Your task to perform on an android device: Open Maps and search for coffee Image 0: 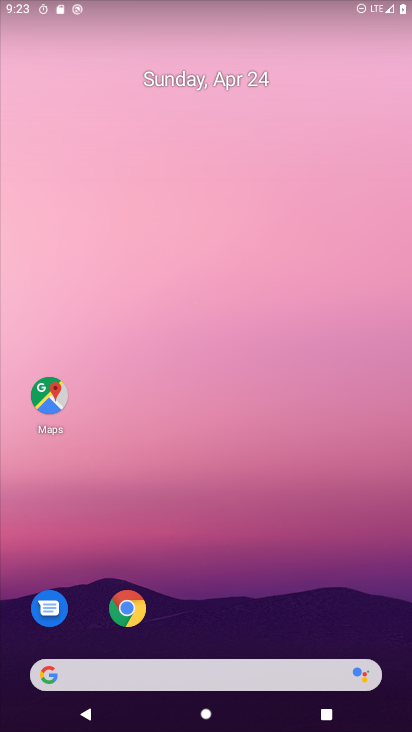
Step 0: click (58, 396)
Your task to perform on an android device: Open Maps and search for coffee Image 1: 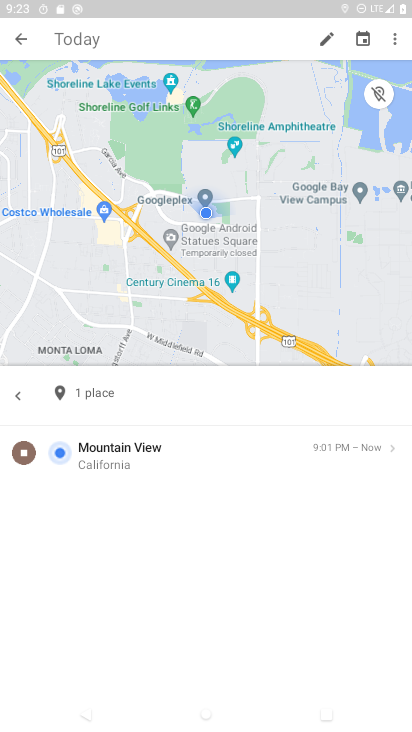
Step 1: click (181, 33)
Your task to perform on an android device: Open Maps and search for coffee Image 2: 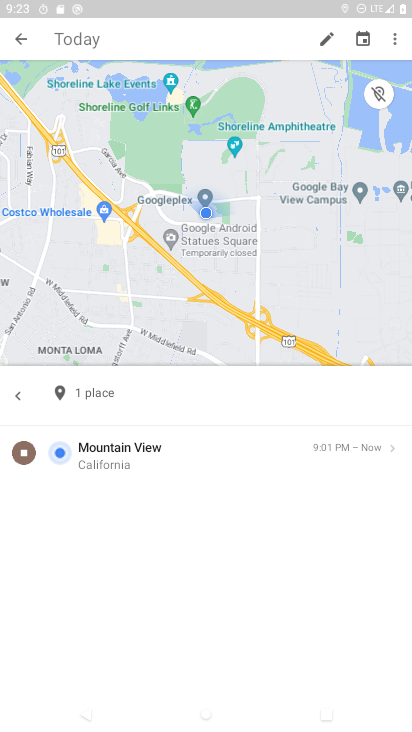
Step 2: click (181, 33)
Your task to perform on an android device: Open Maps and search for coffee Image 3: 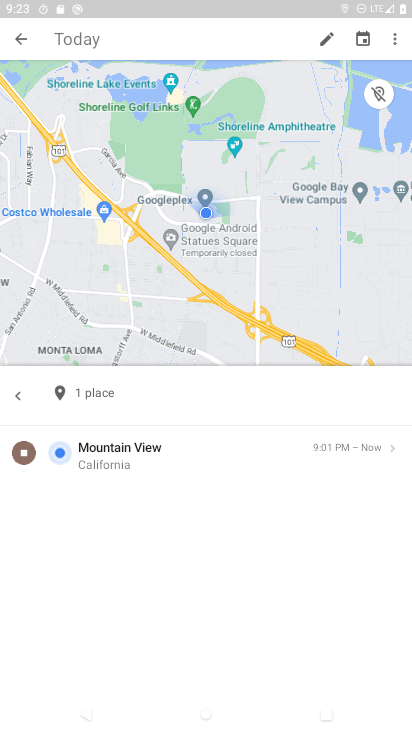
Step 3: click (181, 49)
Your task to perform on an android device: Open Maps and search for coffee Image 4: 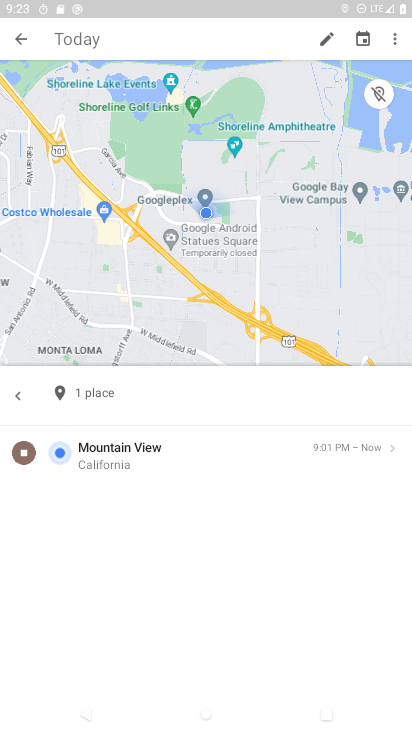
Step 4: click (15, 29)
Your task to perform on an android device: Open Maps and search for coffee Image 5: 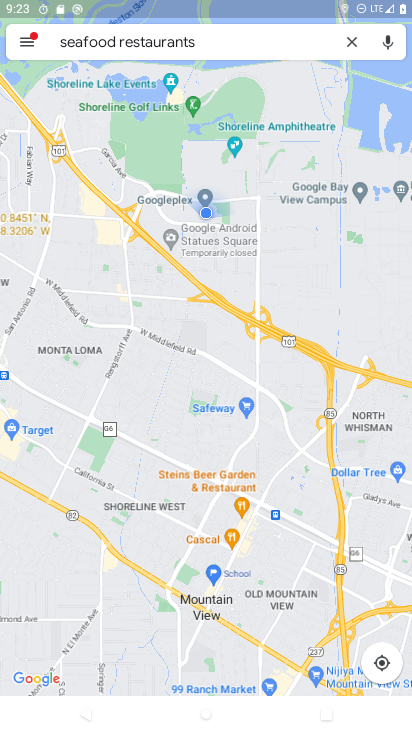
Step 5: click (103, 45)
Your task to perform on an android device: Open Maps and search for coffee Image 6: 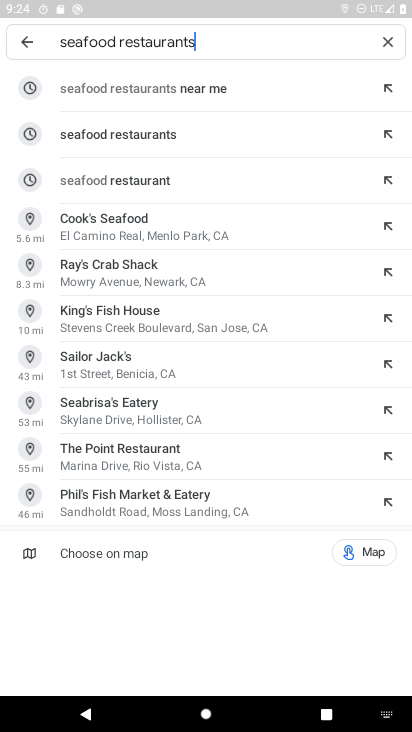
Step 6: click (383, 39)
Your task to perform on an android device: Open Maps and search for coffee Image 7: 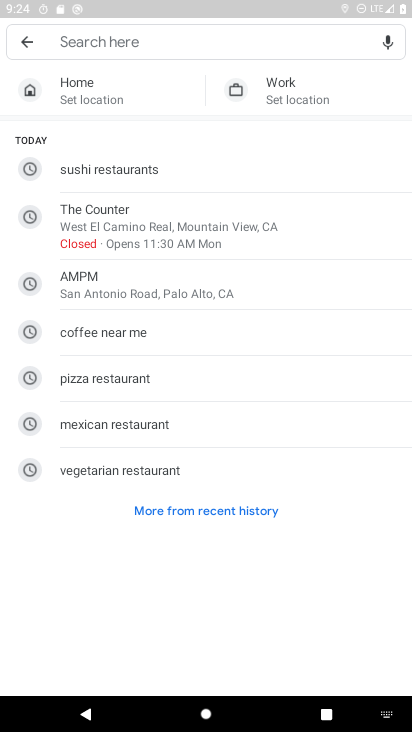
Step 7: type "coffee"
Your task to perform on an android device: Open Maps and search for coffee Image 8: 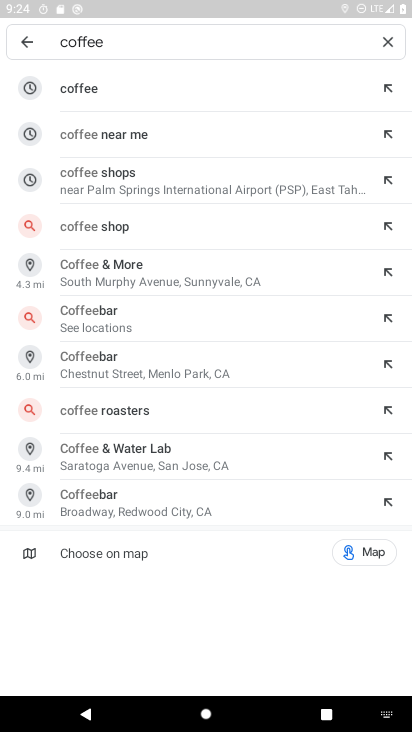
Step 8: click (87, 83)
Your task to perform on an android device: Open Maps and search for coffee Image 9: 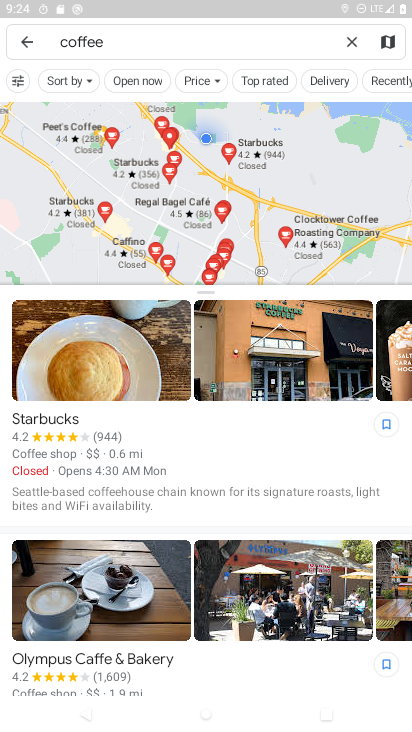
Step 9: task complete